Your task to perform on an android device: Open Google Image 0: 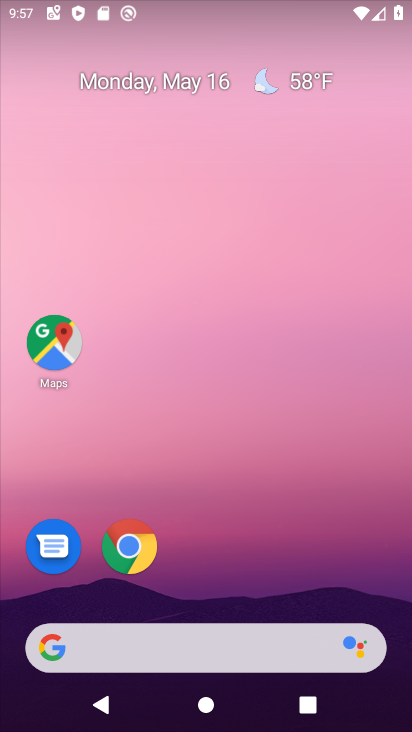
Step 0: drag from (248, 548) to (155, 234)
Your task to perform on an android device: Open Google Image 1: 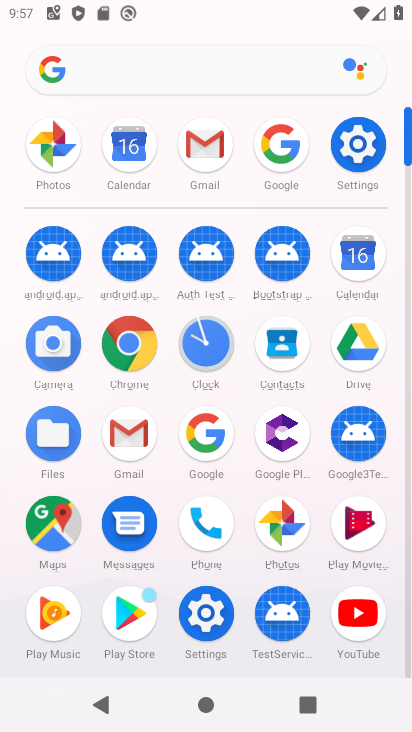
Step 1: click (275, 145)
Your task to perform on an android device: Open Google Image 2: 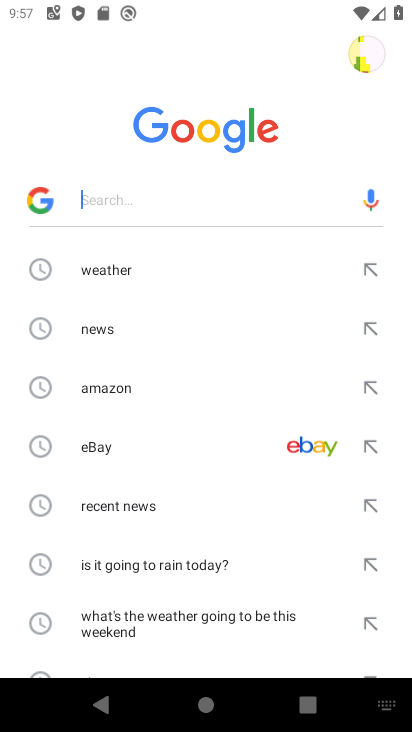
Step 2: task complete